Your task to perform on an android device: Open the calendar app, open the side menu, and click the "Day" option Image 0: 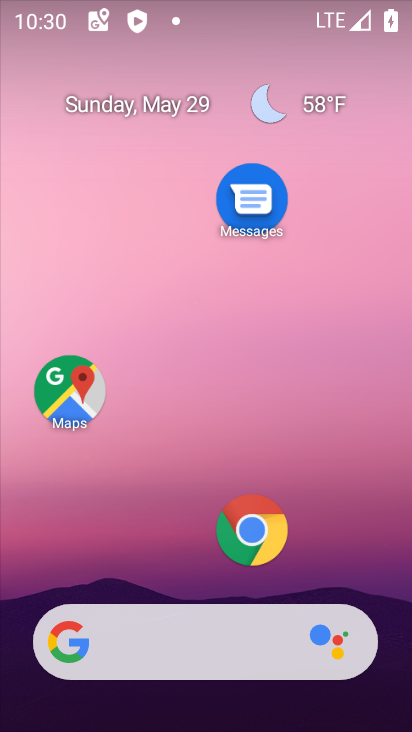
Step 0: drag from (170, 581) to (272, 159)
Your task to perform on an android device: Open the calendar app, open the side menu, and click the "Day" option Image 1: 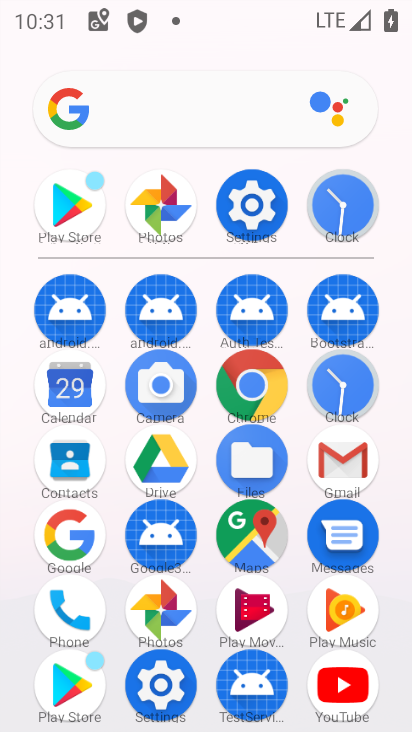
Step 1: click (59, 382)
Your task to perform on an android device: Open the calendar app, open the side menu, and click the "Day" option Image 2: 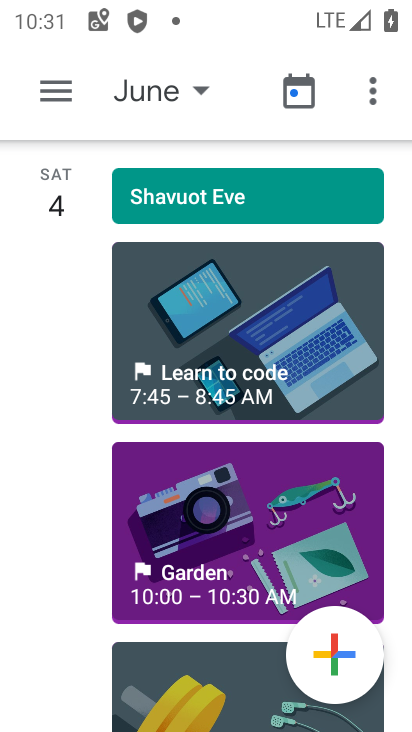
Step 2: click (44, 95)
Your task to perform on an android device: Open the calendar app, open the side menu, and click the "Day" option Image 3: 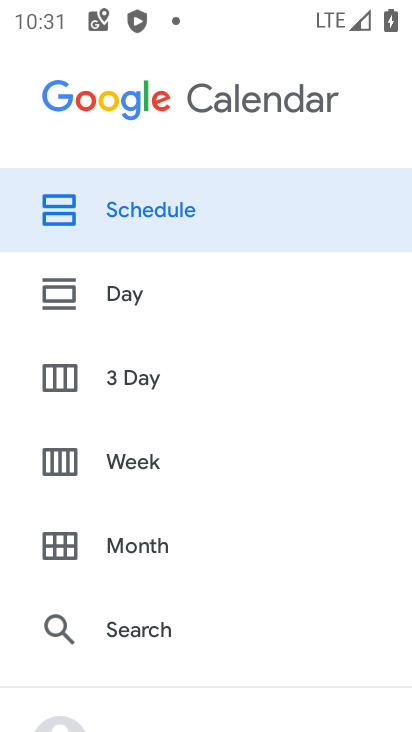
Step 3: click (149, 300)
Your task to perform on an android device: Open the calendar app, open the side menu, and click the "Day" option Image 4: 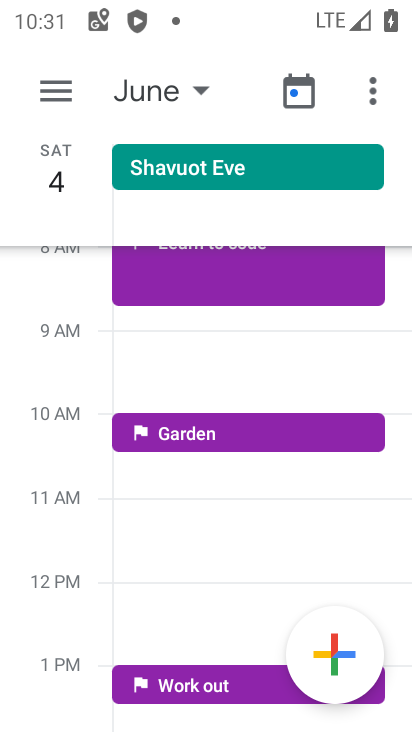
Step 4: task complete